Your task to perform on an android device: Open internet settings Image 0: 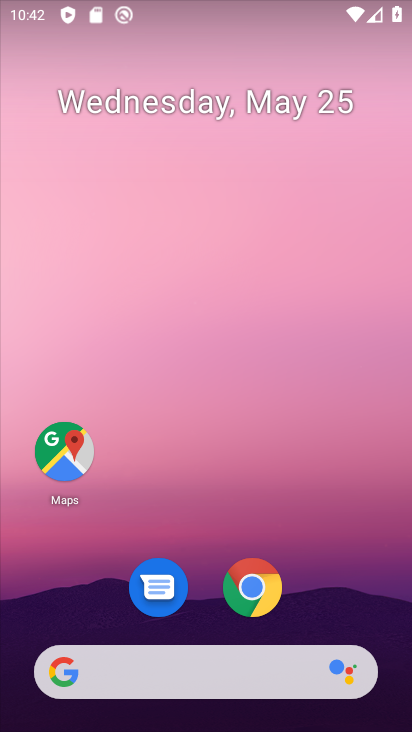
Step 0: drag from (325, 522) to (273, 9)
Your task to perform on an android device: Open internet settings Image 1: 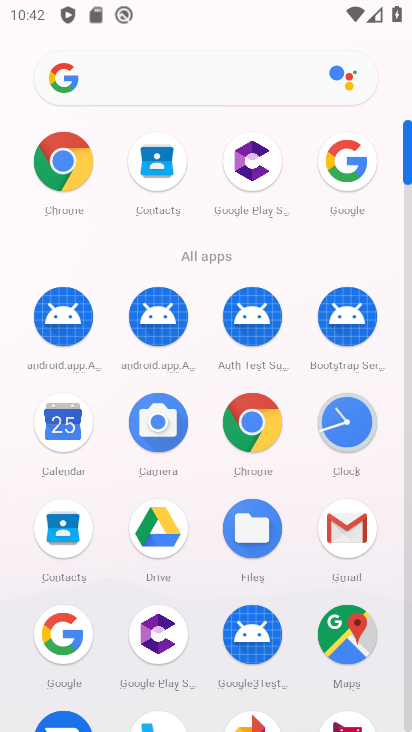
Step 1: drag from (9, 460) to (14, 226)
Your task to perform on an android device: Open internet settings Image 2: 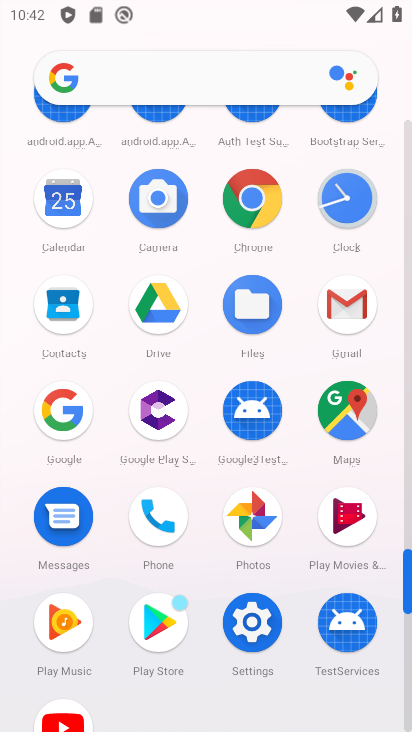
Step 2: click (250, 617)
Your task to perform on an android device: Open internet settings Image 3: 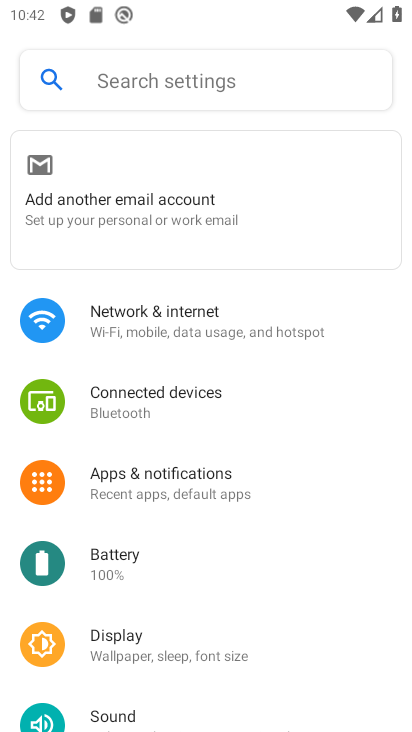
Step 3: click (215, 319)
Your task to perform on an android device: Open internet settings Image 4: 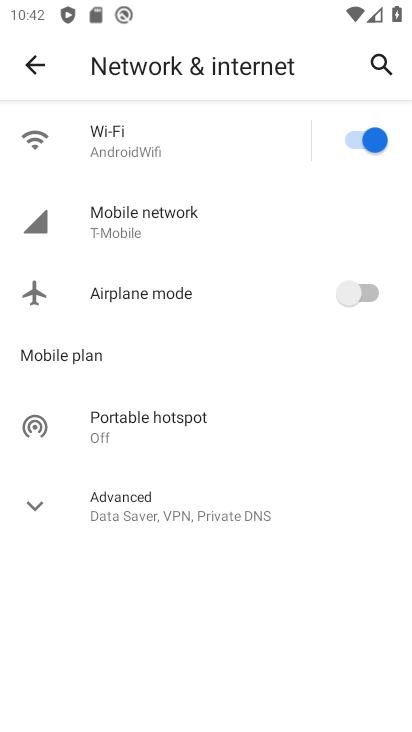
Step 4: click (40, 513)
Your task to perform on an android device: Open internet settings Image 5: 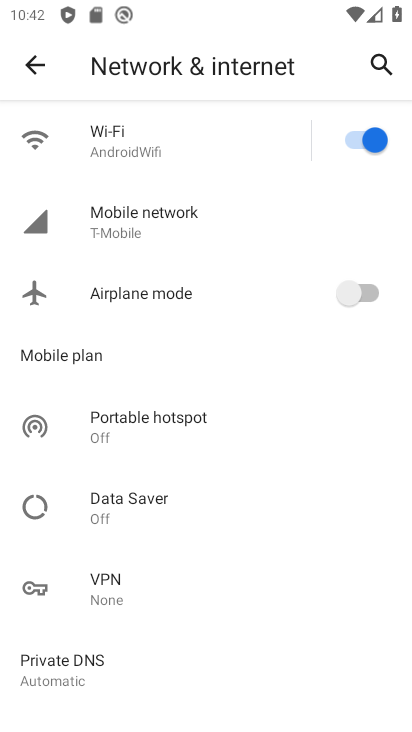
Step 5: task complete